Your task to perform on an android device: Clear all items from cart on target.com. Add "dell xps" to the cart on target.com Image 0: 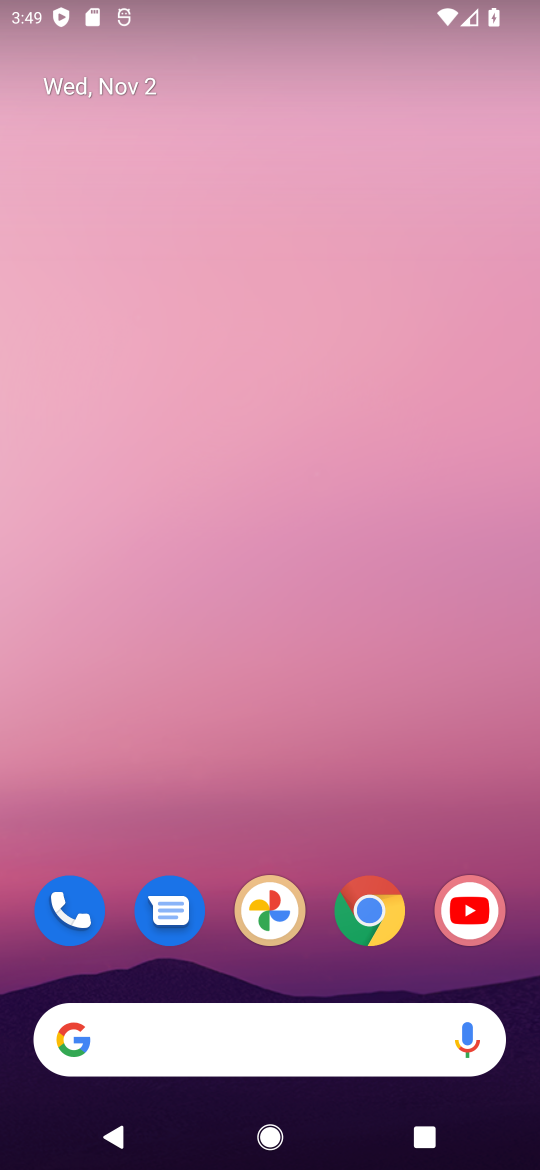
Step 0: click (382, 917)
Your task to perform on an android device: Clear all items from cart on target.com. Add "dell xps" to the cart on target.com Image 1: 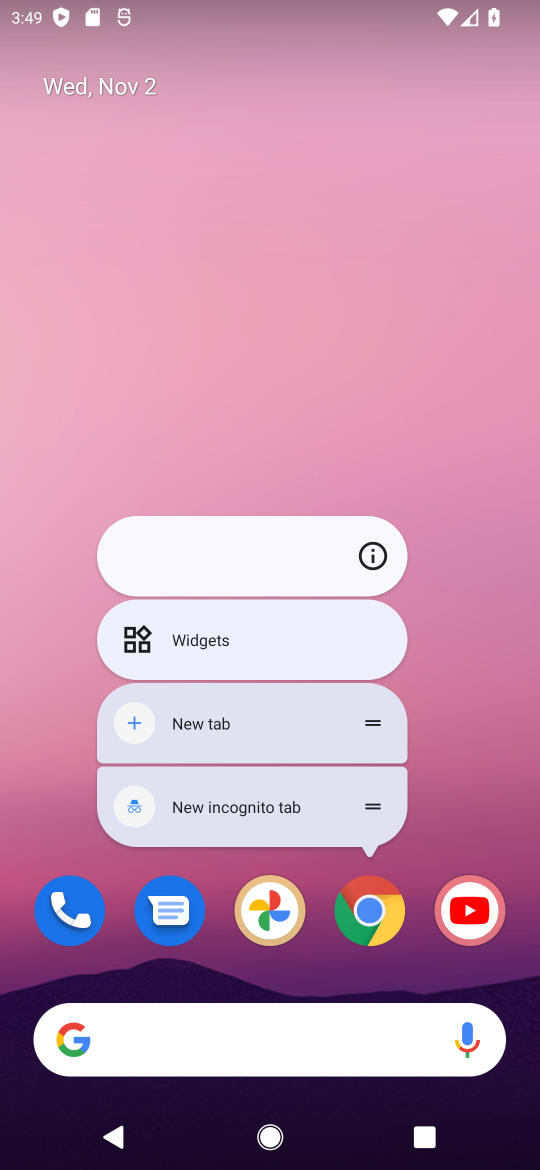
Step 1: click (369, 917)
Your task to perform on an android device: Clear all items from cart on target.com. Add "dell xps" to the cart on target.com Image 2: 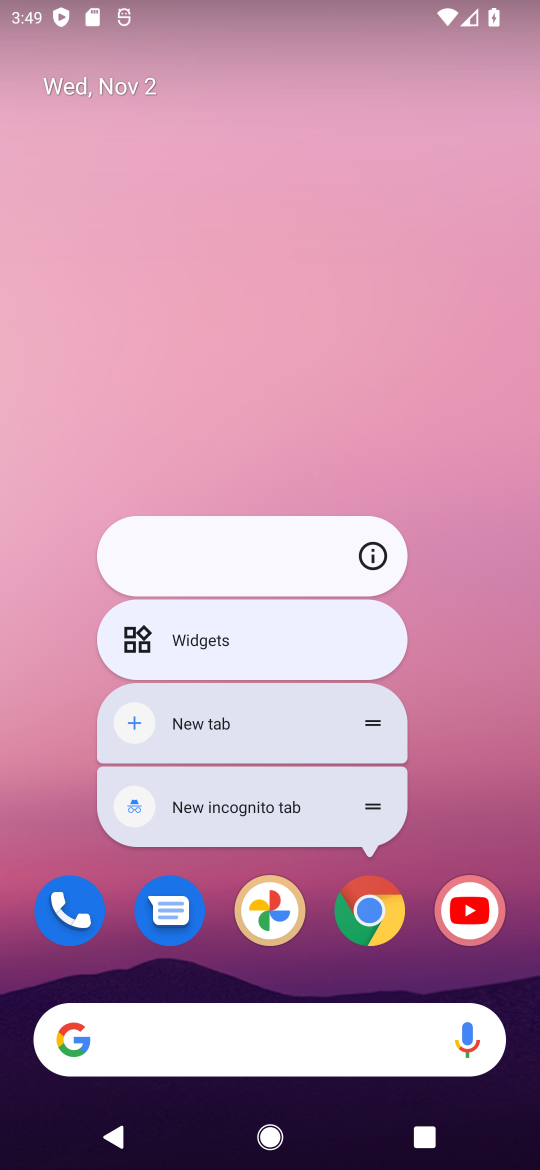
Step 2: click (375, 925)
Your task to perform on an android device: Clear all items from cart on target.com. Add "dell xps" to the cart on target.com Image 3: 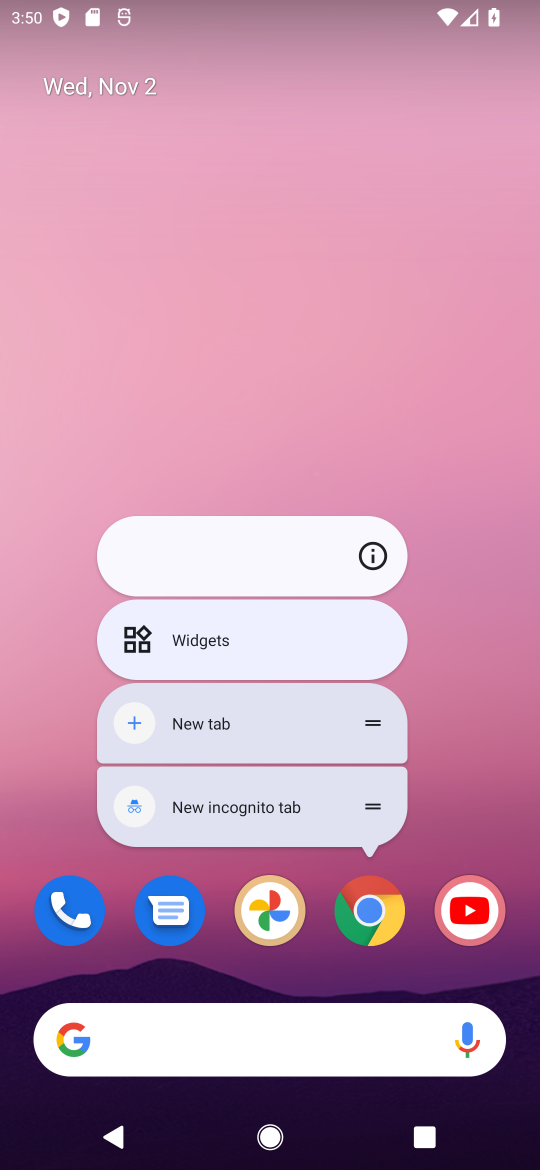
Step 3: click (372, 917)
Your task to perform on an android device: Clear all items from cart on target.com. Add "dell xps" to the cart on target.com Image 4: 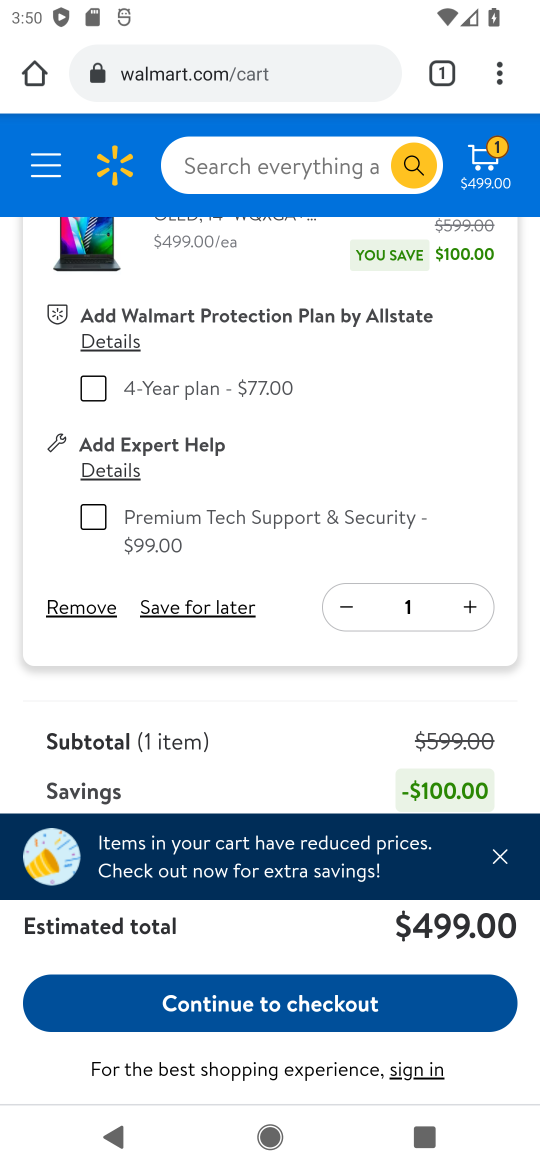
Step 4: click (209, 80)
Your task to perform on an android device: Clear all items from cart on target.com. Add "dell xps" to the cart on target.com Image 5: 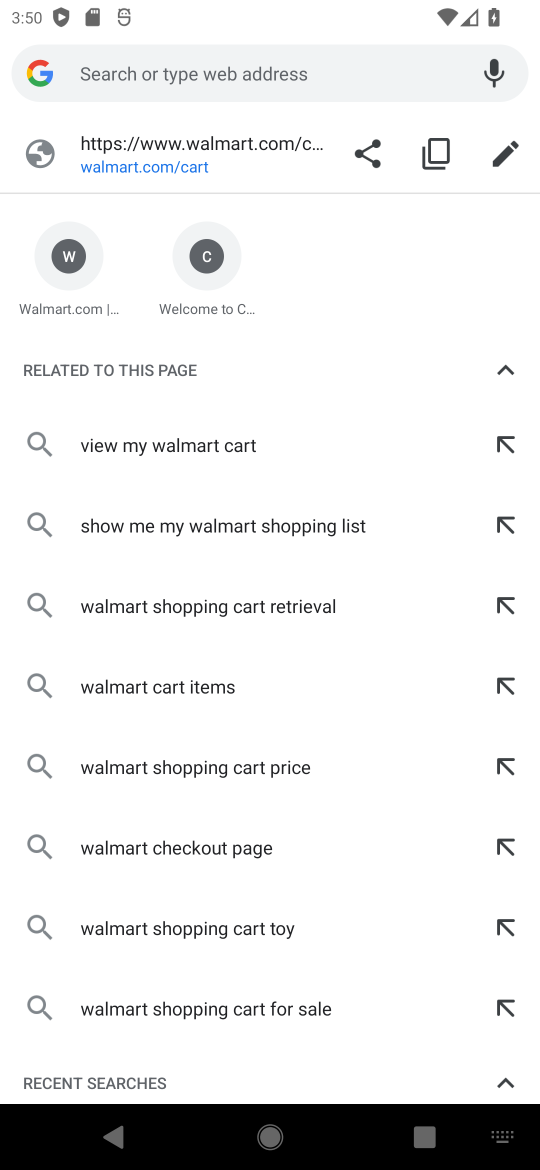
Step 5: type "target.com"
Your task to perform on an android device: Clear all items from cart on target.com. Add "dell xps" to the cart on target.com Image 6: 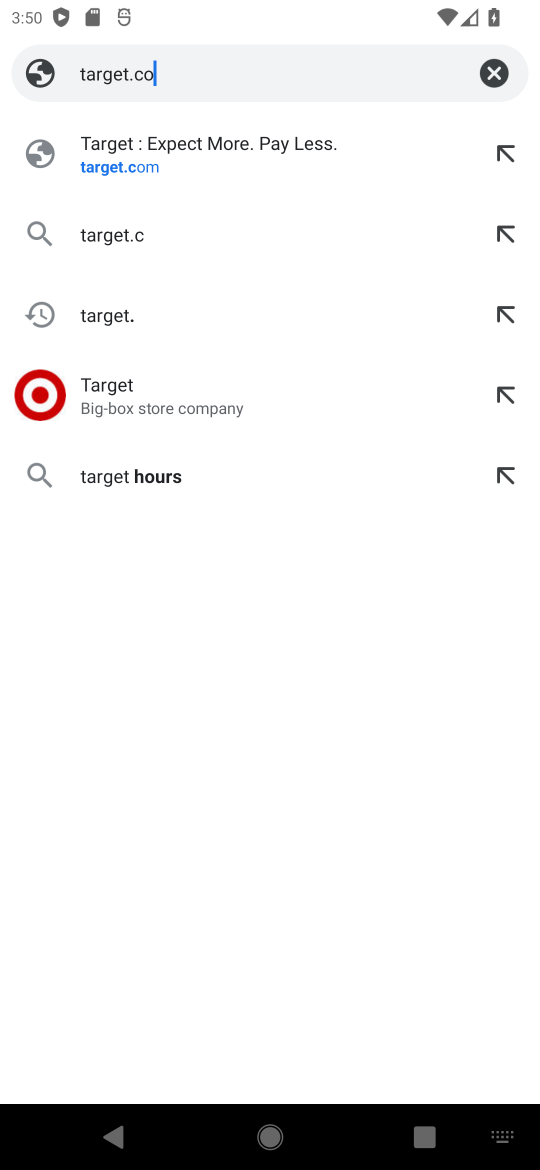
Step 6: type ""
Your task to perform on an android device: Clear all items from cart on target.com. Add "dell xps" to the cart on target.com Image 7: 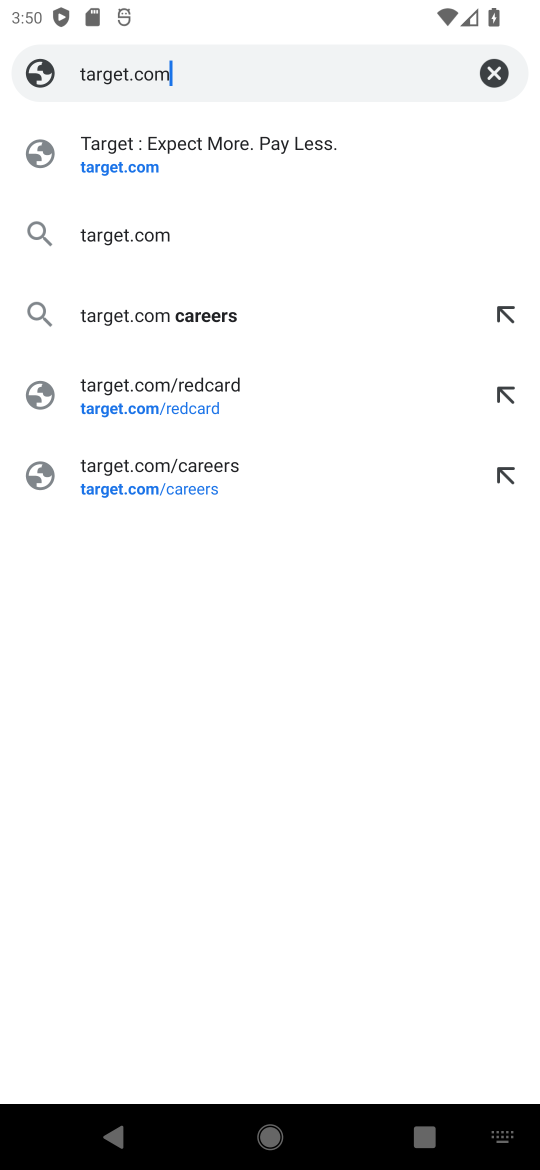
Step 7: click (358, 133)
Your task to perform on an android device: Clear all items from cart on target.com. Add "dell xps" to the cart on target.com Image 8: 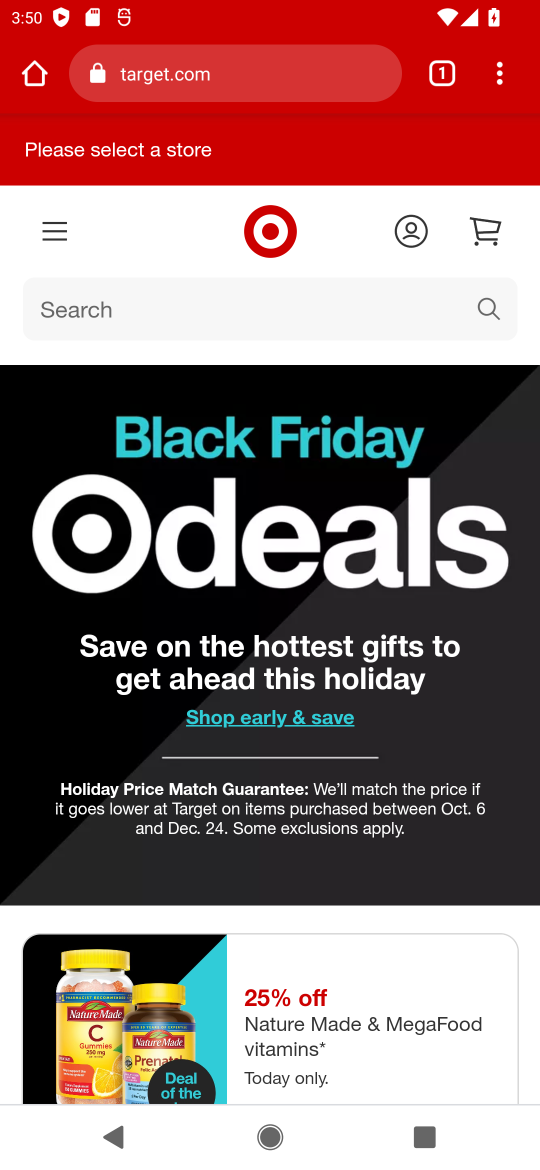
Step 8: click (271, 297)
Your task to perform on an android device: Clear all items from cart on target.com. Add "dell xps" to the cart on target.com Image 9: 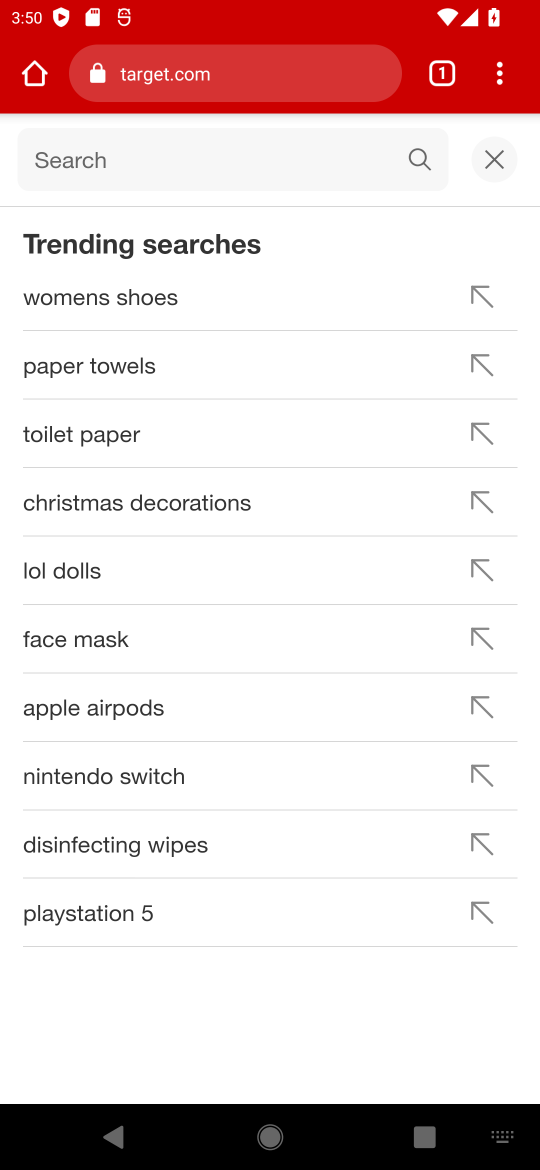
Step 9: type "dell xps"
Your task to perform on an android device: Clear all items from cart on target.com. Add "dell xps" to the cart on target.com Image 10: 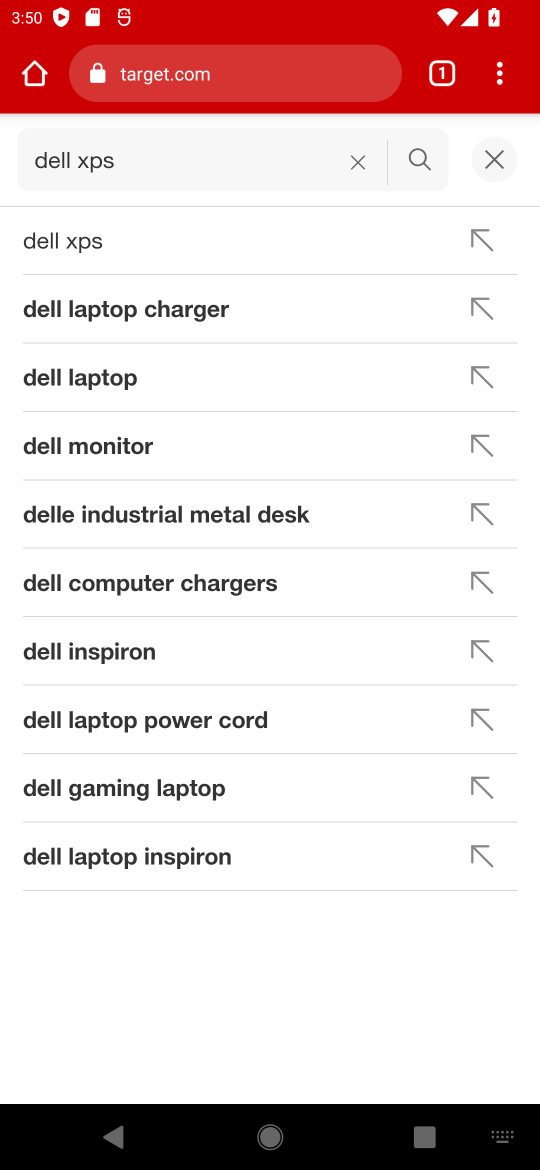
Step 10: click (162, 261)
Your task to perform on an android device: Clear all items from cart on target.com. Add "dell xps" to the cart on target.com Image 11: 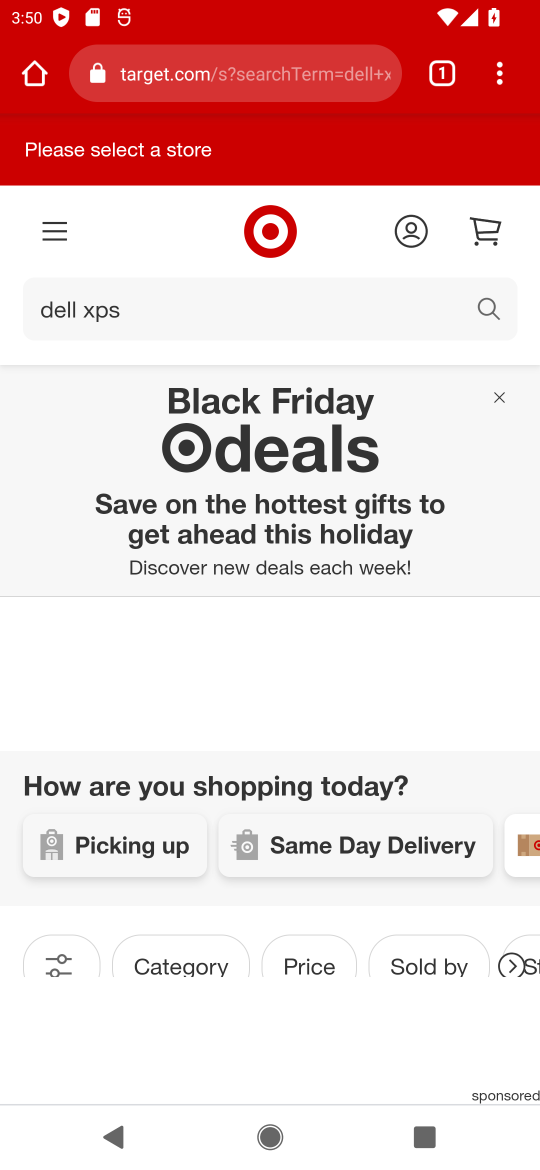
Step 11: drag from (292, 892) to (319, 387)
Your task to perform on an android device: Clear all items from cart on target.com. Add "dell xps" to the cart on target.com Image 12: 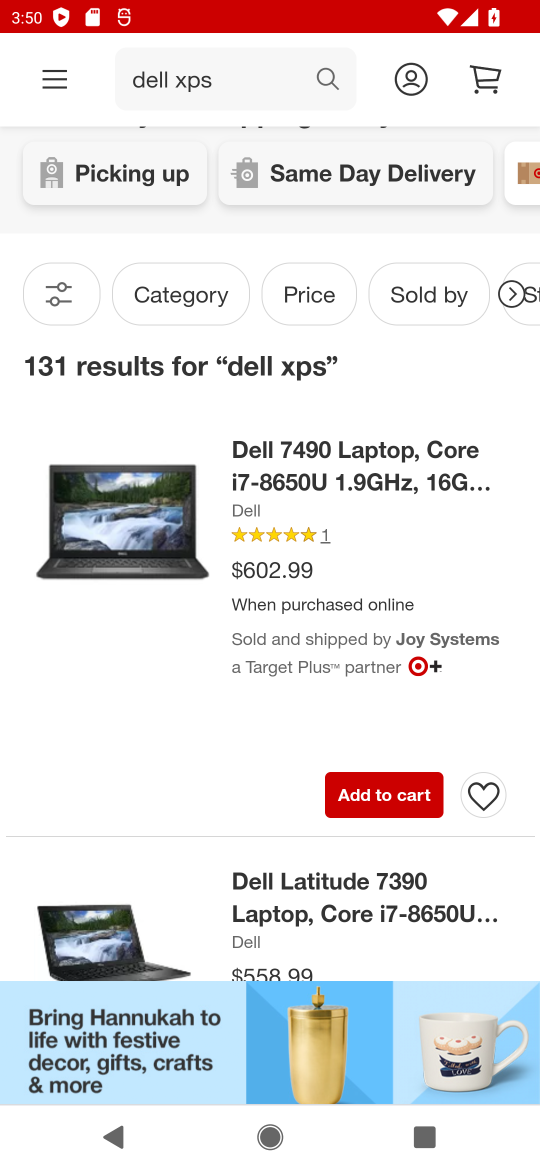
Step 12: drag from (276, 788) to (338, 1159)
Your task to perform on an android device: Clear all items from cart on target.com. Add "dell xps" to the cart on target.com Image 13: 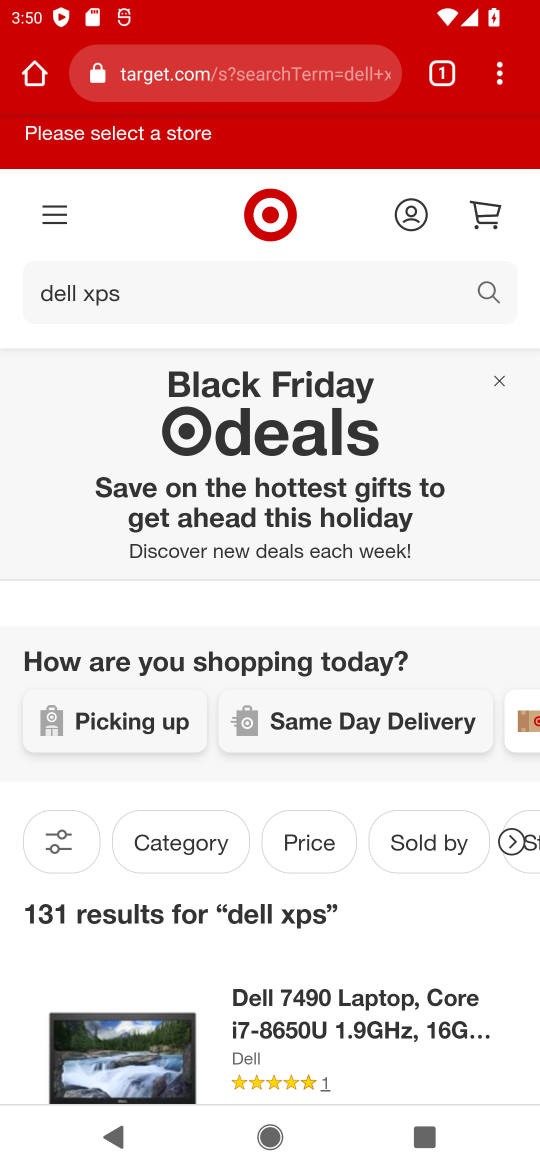
Step 13: click (141, 288)
Your task to perform on an android device: Clear all items from cart on target.com. Add "dell xps" to the cart on target.com Image 14: 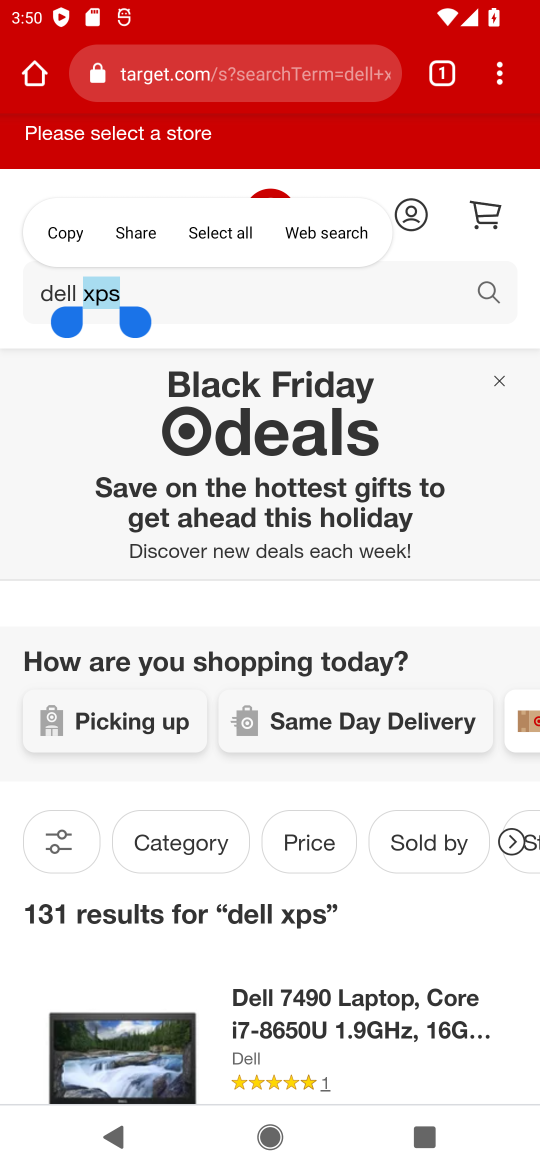
Step 14: drag from (63, 332) to (0, 299)
Your task to perform on an android device: Clear all items from cart on target.com. Add "dell xps" to the cart on target.com Image 15: 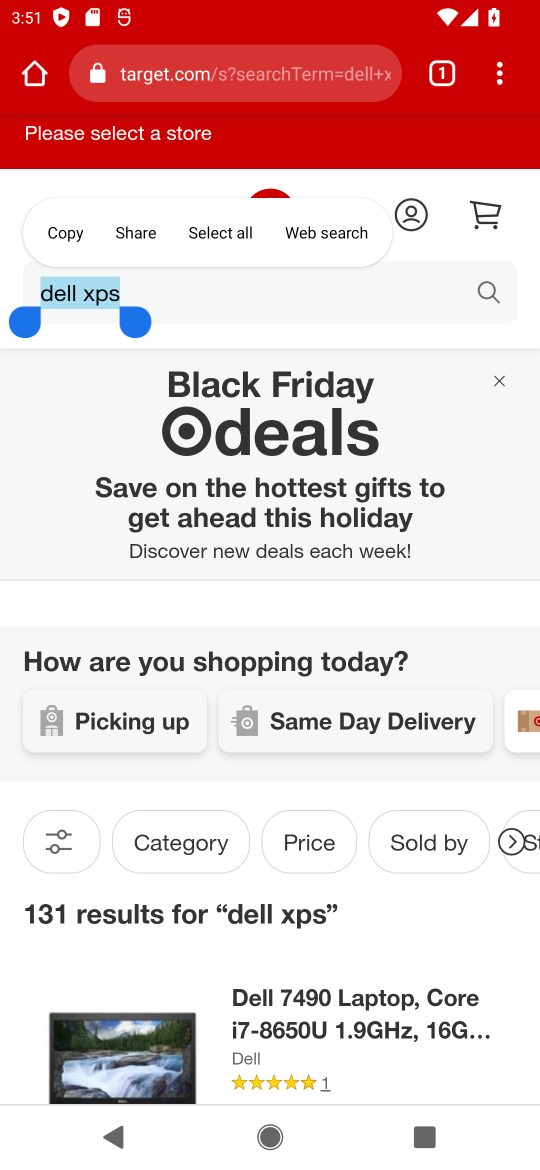
Step 15: type "dell xps laptop"
Your task to perform on an android device: Clear all items from cart on target.com. Add "dell xps" to the cart on target.com Image 16: 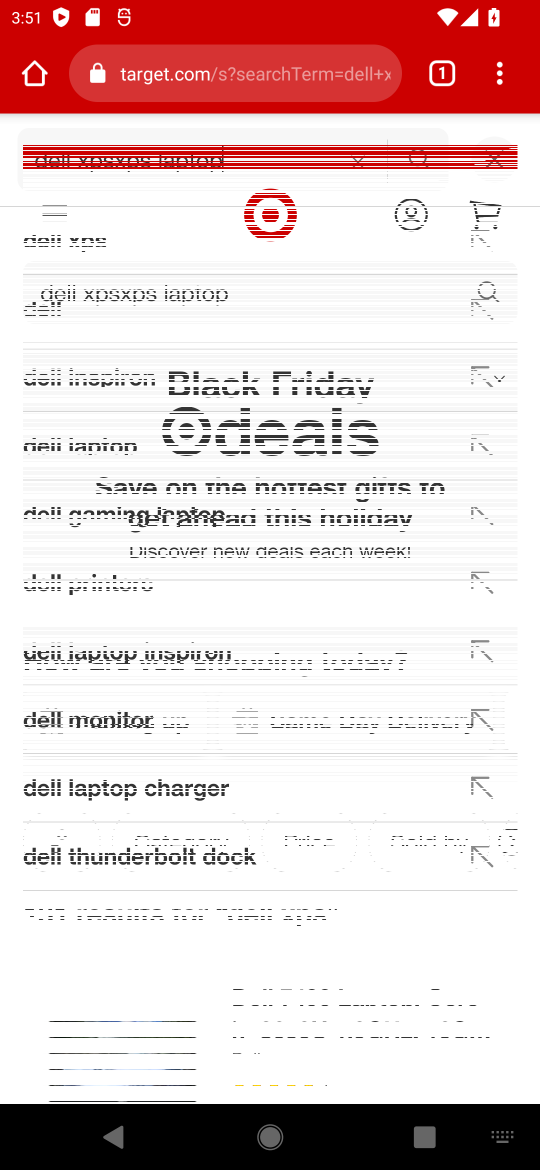
Step 16: press enter
Your task to perform on an android device: Clear all items from cart on target.com. Add "dell xps" to the cart on target.com Image 17: 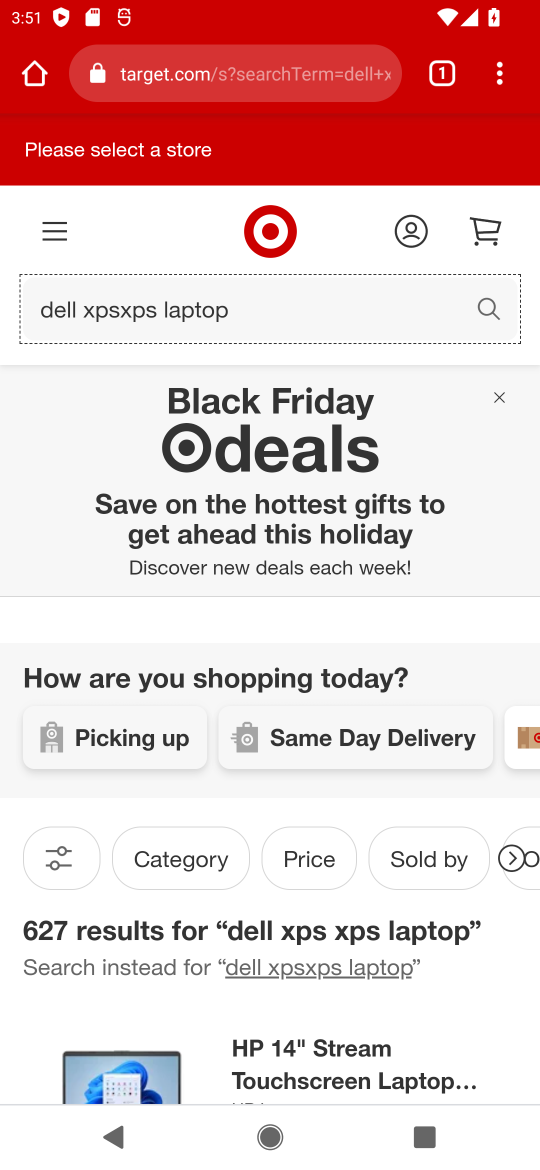
Step 17: drag from (327, 829) to (422, 292)
Your task to perform on an android device: Clear all items from cart on target.com. Add "dell xps" to the cart on target.com Image 18: 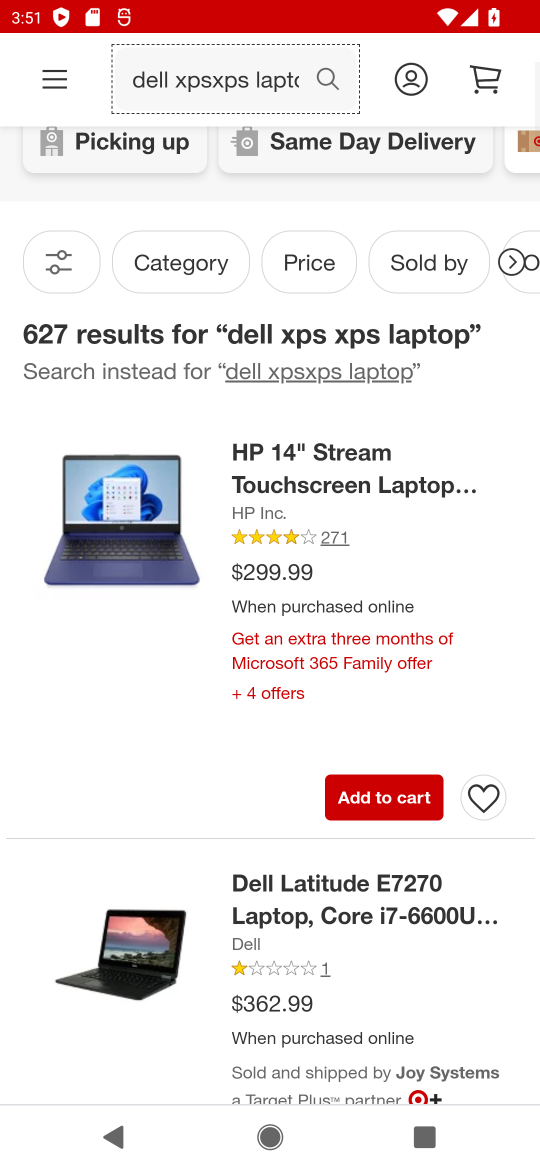
Step 18: drag from (294, 900) to (368, 400)
Your task to perform on an android device: Clear all items from cart on target.com. Add "dell xps" to the cart on target.com Image 19: 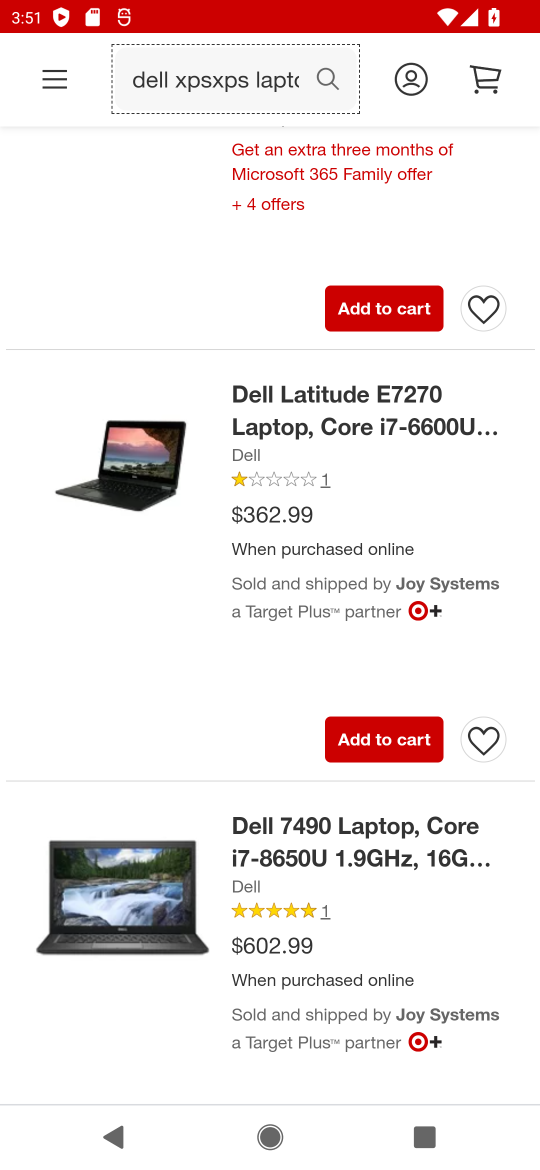
Step 19: drag from (303, 864) to (379, 377)
Your task to perform on an android device: Clear all items from cart on target.com. Add "dell xps" to the cart on target.com Image 20: 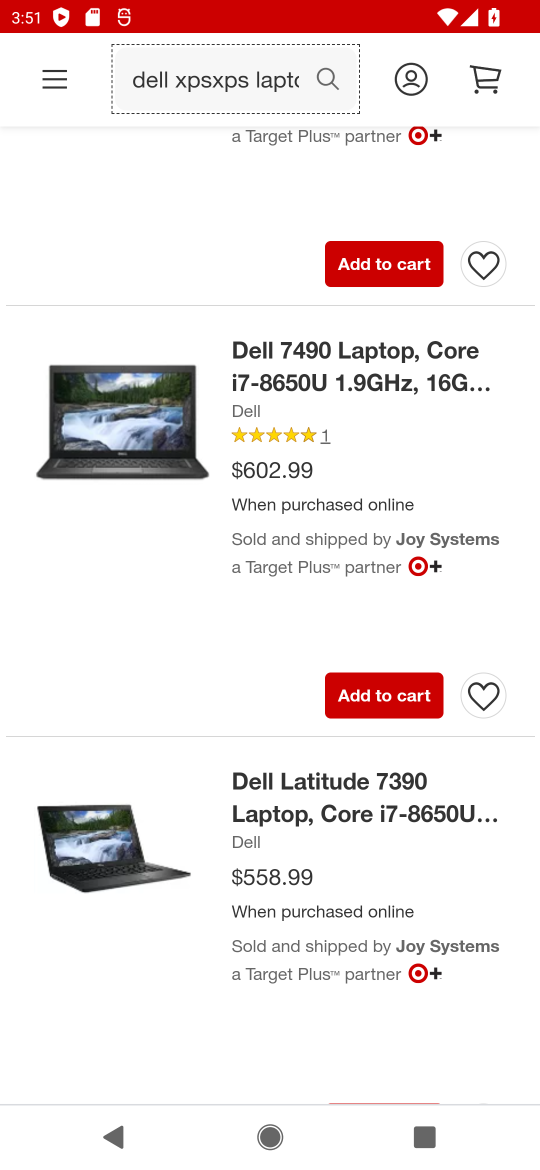
Step 20: drag from (363, 915) to (379, 450)
Your task to perform on an android device: Clear all items from cart on target.com. Add "dell xps" to the cart on target.com Image 21: 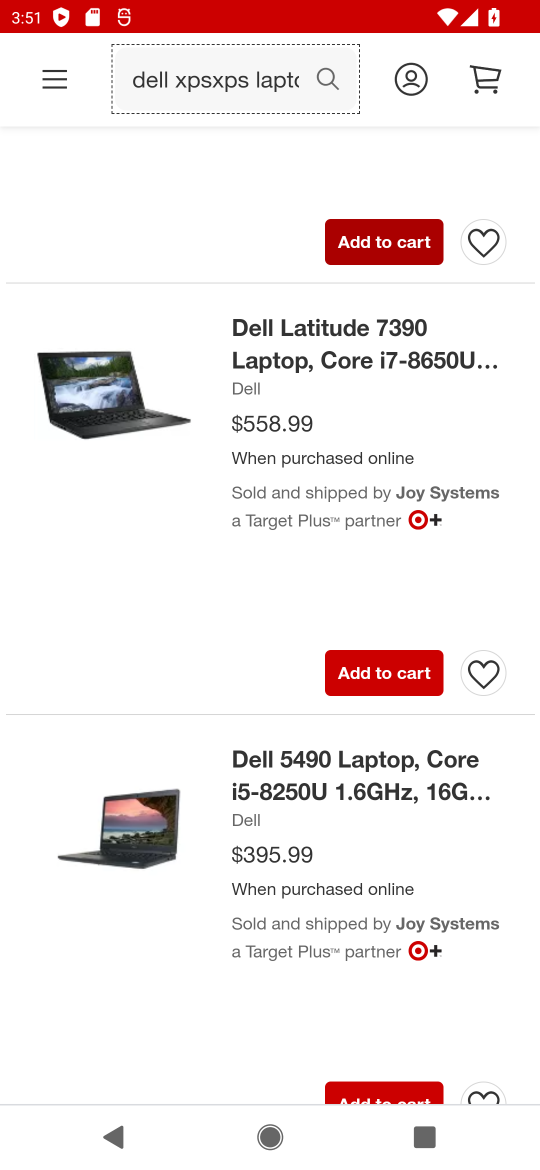
Step 21: drag from (311, 828) to (346, 518)
Your task to perform on an android device: Clear all items from cart on target.com. Add "dell xps" to the cart on target.com Image 22: 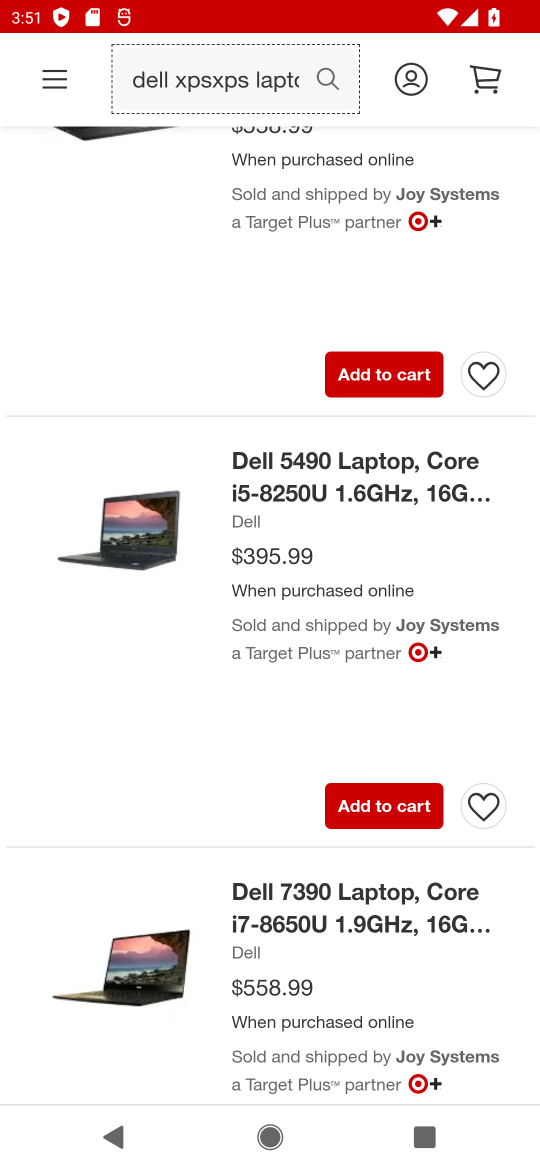
Step 22: click (372, 788)
Your task to perform on an android device: Clear all items from cart on target.com. Add "dell xps" to the cart on target.com Image 23: 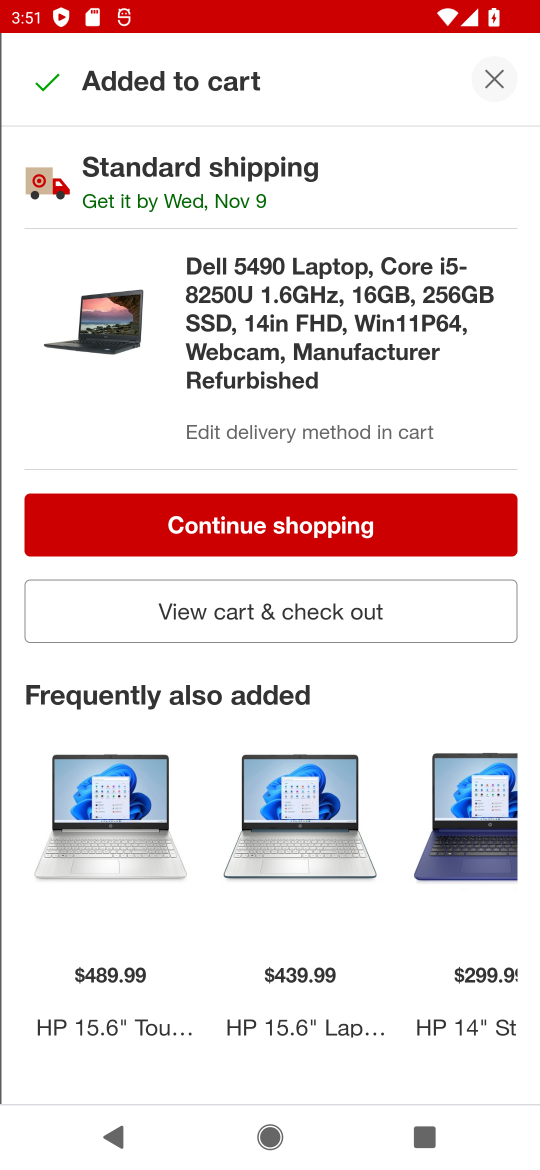
Step 23: click (356, 535)
Your task to perform on an android device: Clear all items from cart on target.com. Add "dell xps" to the cart on target.com Image 24: 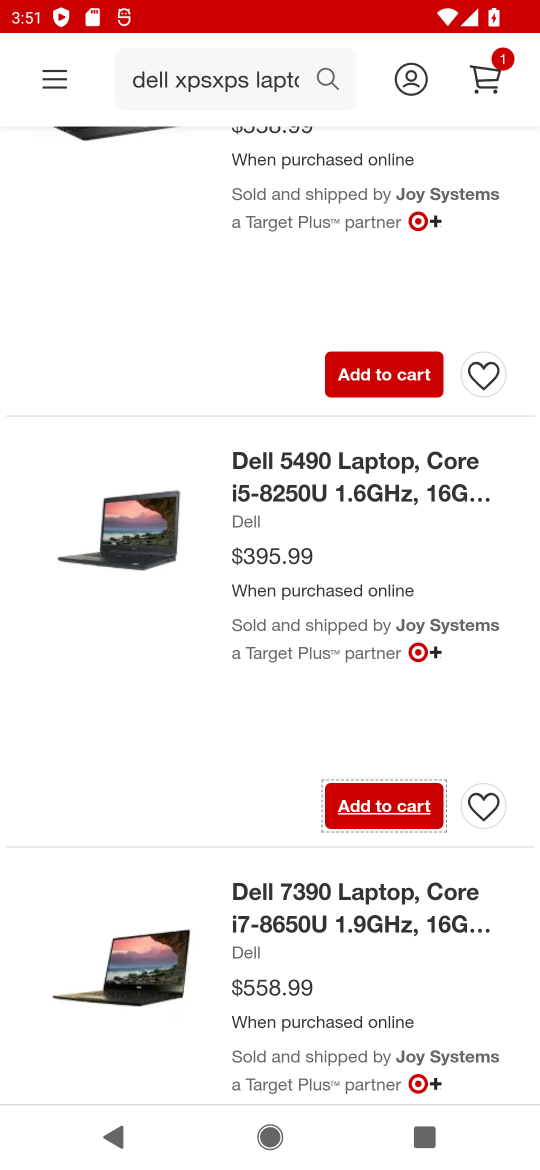
Step 24: task complete